Your task to perform on an android device: Find coffee shops on Maps Image 0: 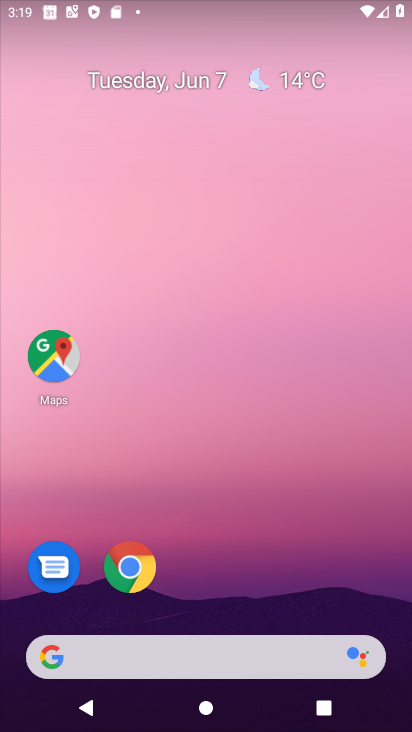
Step 0: click (47, 355)
Your task to perform on an android device: Find coffee shops on Maps Image 1: 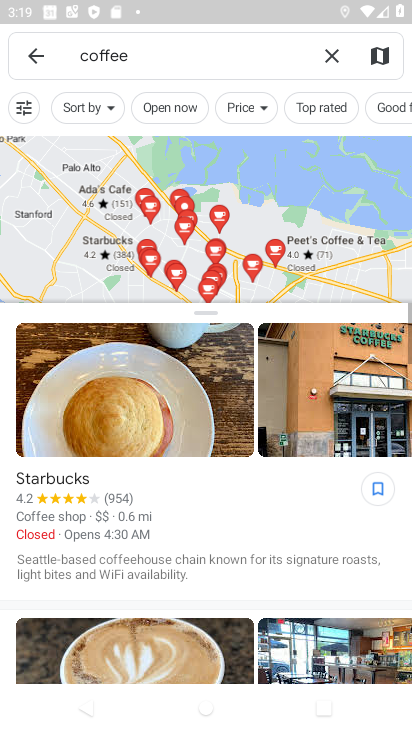
Step 1: task complete